Your task to perform on an android device: open sync settings in chrome Image 0: 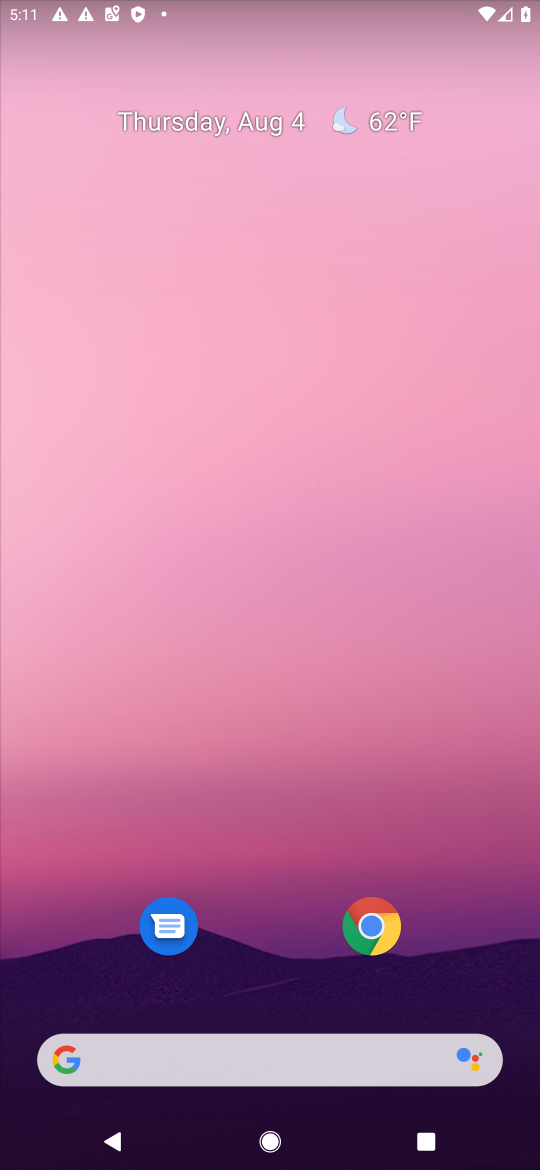
Step 0: press home button
Your task to perform on an android device: open sync settings in chrome Image 1: 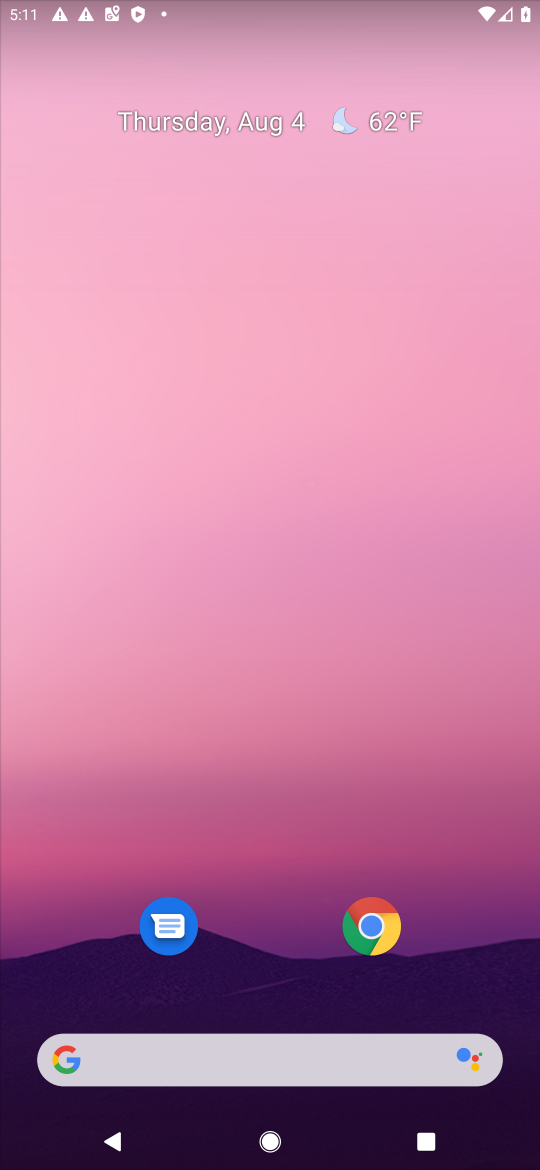
Step 1: drag from (306, 688) to (440, 38)
Your task to perform on an android device: open sync settings in chrome Image 2: 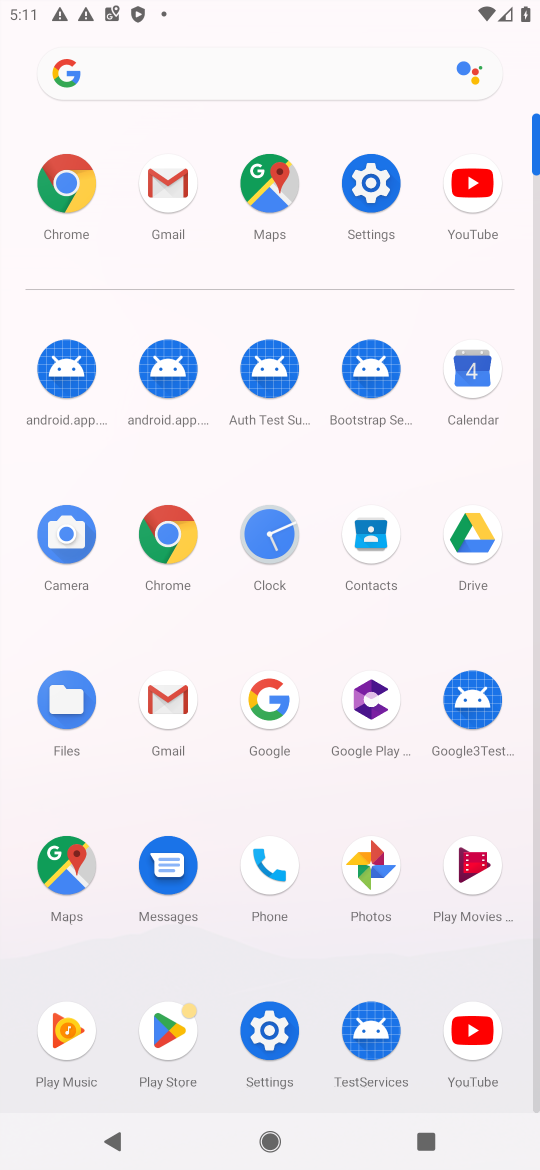
Step 2: click (64, 197)
Your task to perform on an android device: open sync settings in chrome Image 3: 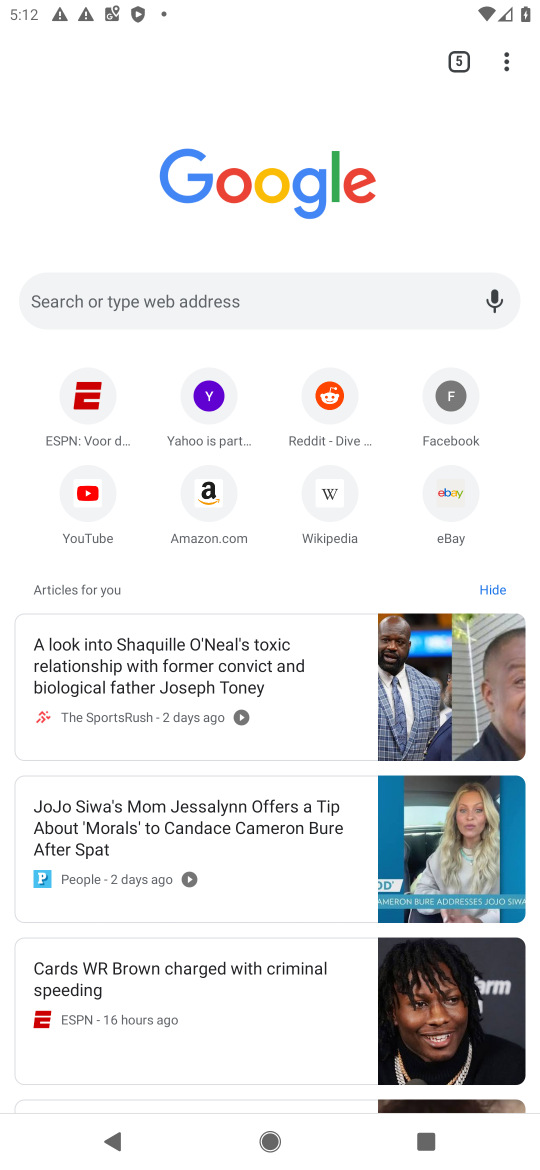
Step 3: click (506, 66)
Your task to perform on an android device: open sync settings in chrome Image 4: 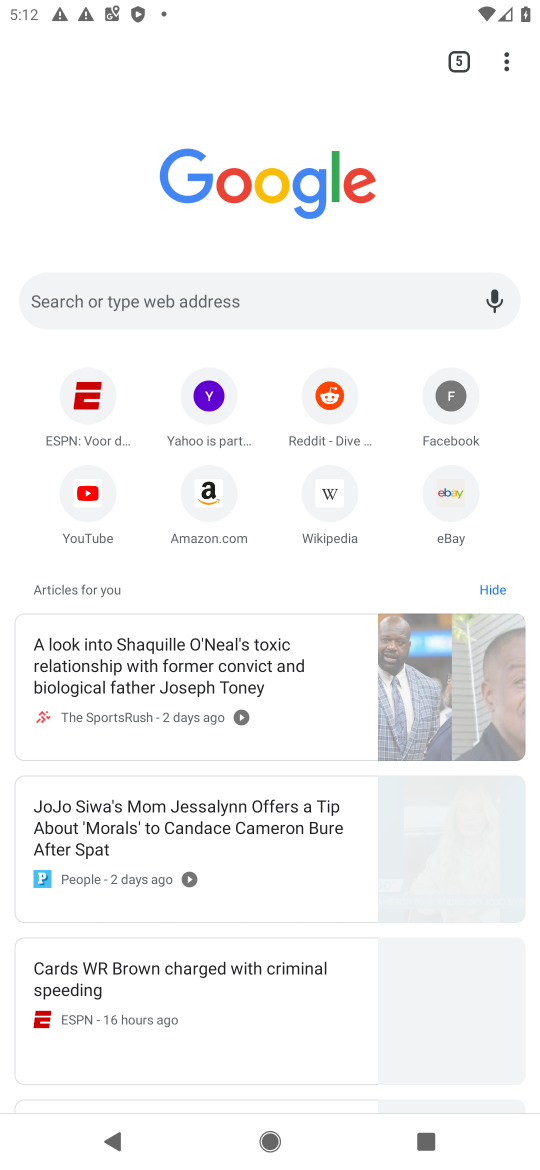
Step 4: drag from (506, 66) to (304, 581)
Your task to perform on an android device: open sync settings in chrome Image 5: 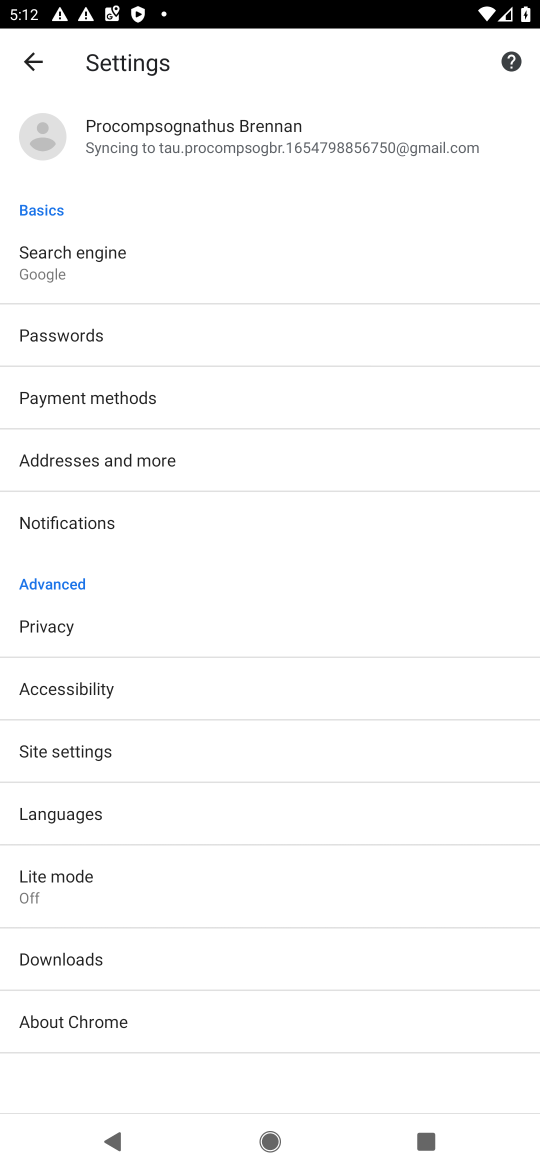
Step 5: click (211, 136)
Your task to perform on an android device: open sync settings in chrome Image 6: 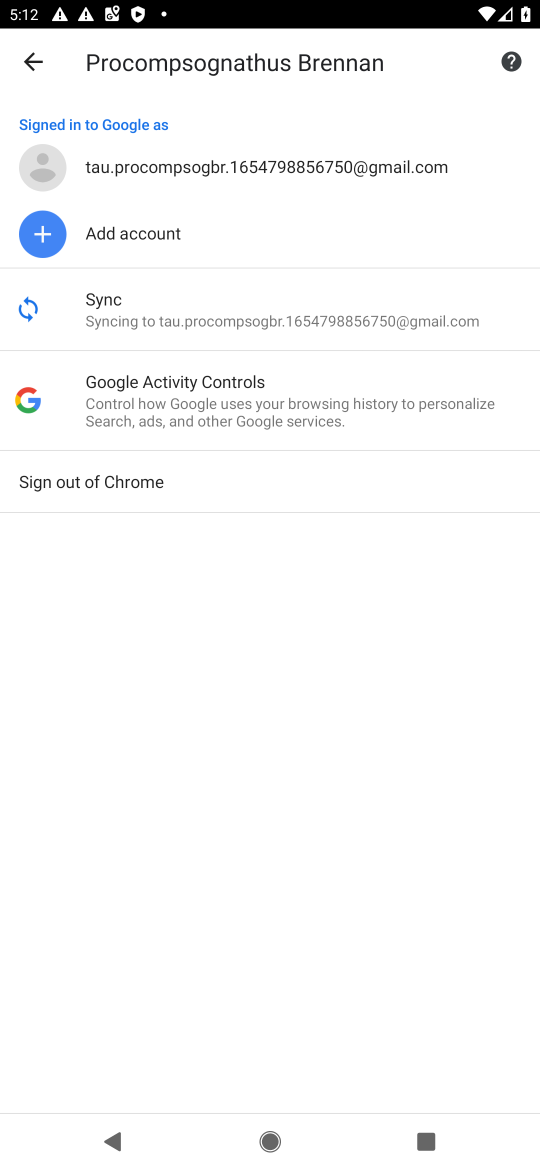
Step 6: click (178, 317)
Your task to perform on an android device: open sync settings in chrome Image 7: 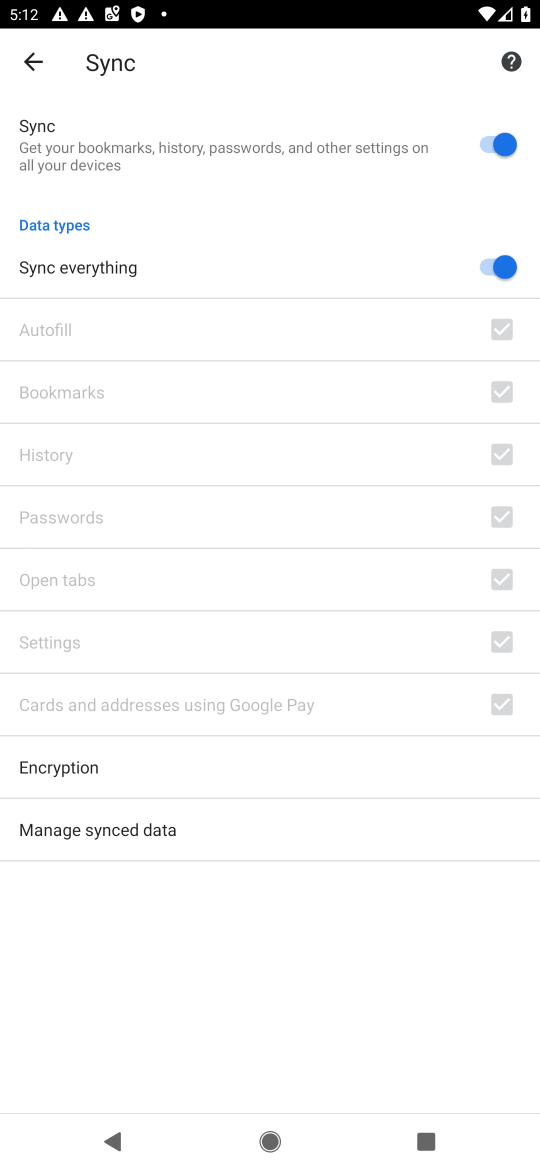
Step 7: task complete